Your task to perform on an android device: Go to sound settings Image 0: 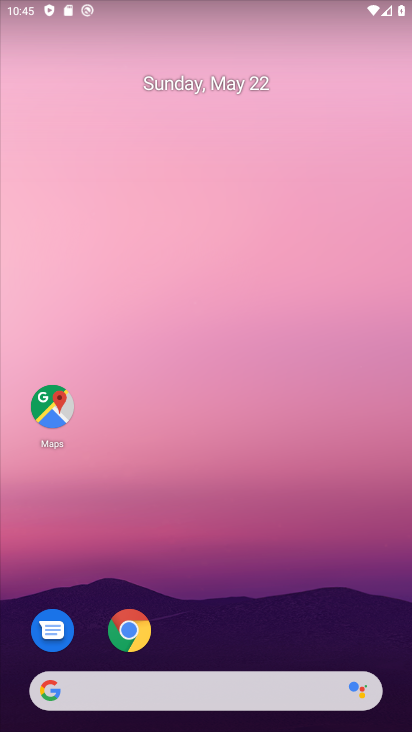
Step 0: drag from (293, 648) to (292, 209)
Your task to perform on an android device: Go to sound settings Image 1: 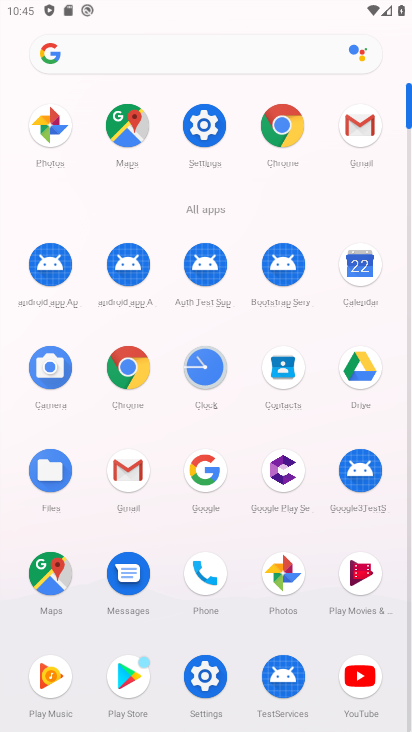
Step 1: click (218, 144)
Your task to perform on an android device: Go to sound settings Image 2: 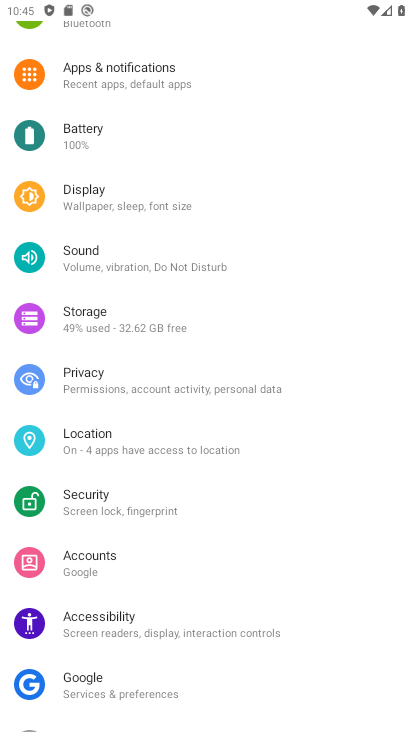
Step 2: drag from (320, 585) to (312, 400)
Your task to perform on an android device: Go to sound settings Image 3: 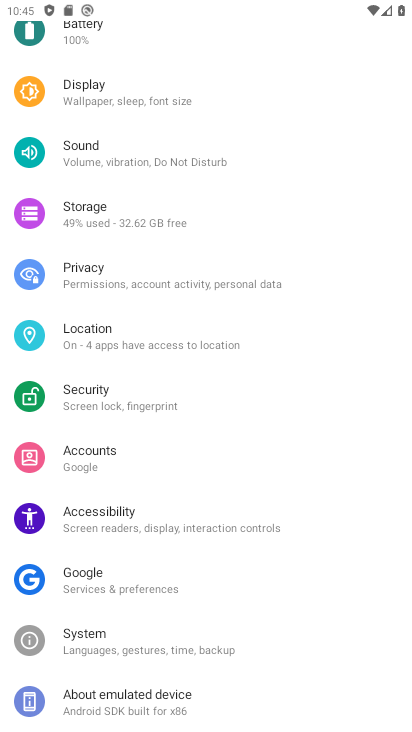
Step 3: drag from (312, 607) to (318, 438)
Your task to perform on an android device: Go to sound settings Image 4: 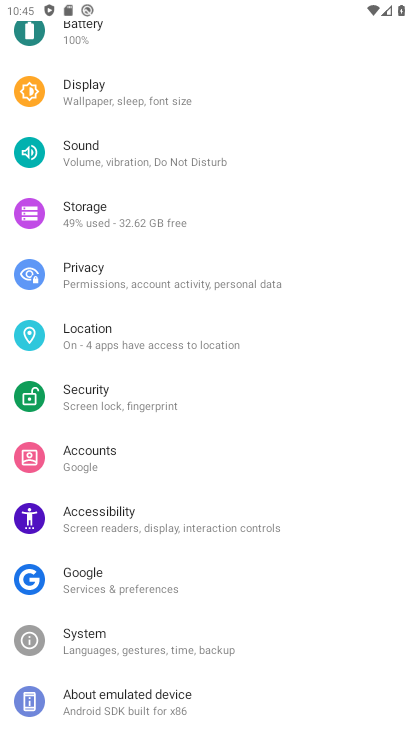
Step 4: drag from (324, 688) to (308, 479)
Your task to perform on an android device: Go to sound settings Image 5: 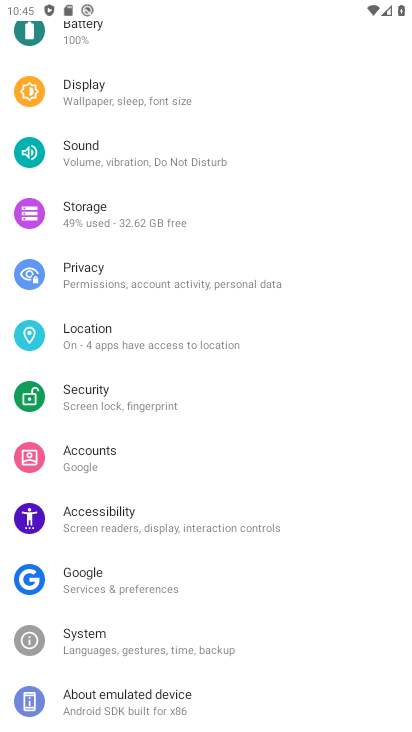
Step 5: drag from (358, 685) to (361, 522)
Your task to perform on an android device: Go to sound settings Image 6: 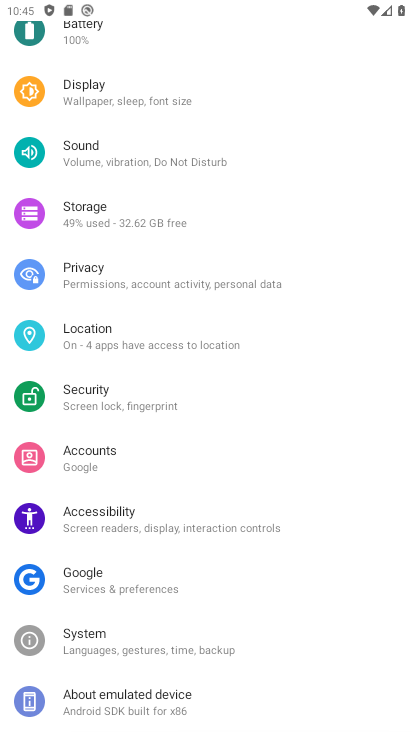
Step 6: drag from (351, 333) to (350, 505)
Your task to perform on an android device: Go to sound settings Image 7: 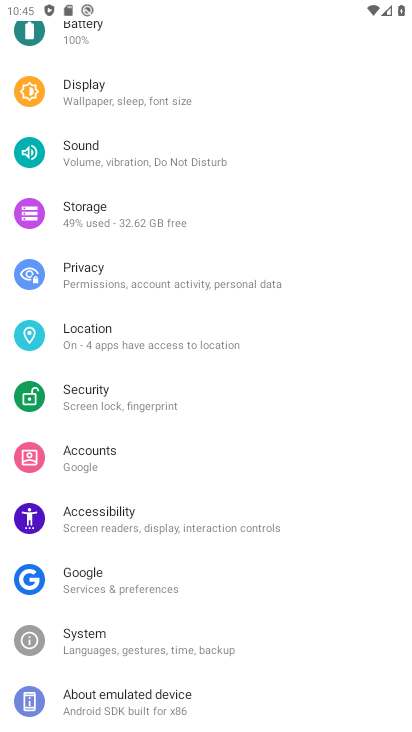
Step 7: drag from (363, 342) to (347, 446)
Your task to perform on an android device: Go to sound settings Image 8: 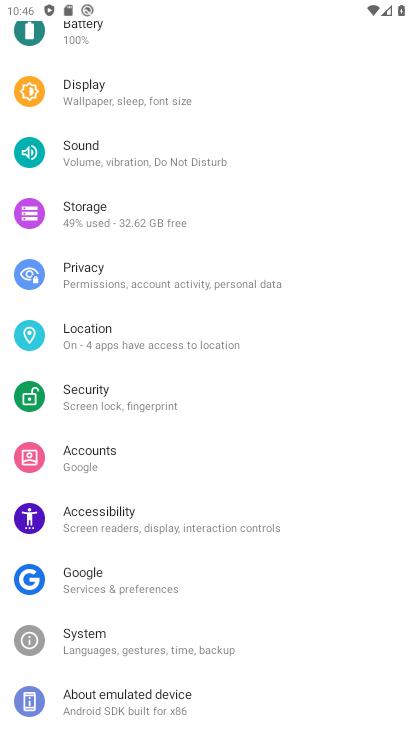
Step 8: drag from (355, 341) to (337, 444)
Your task to perform on an android device: Go to sound settings Image 9: 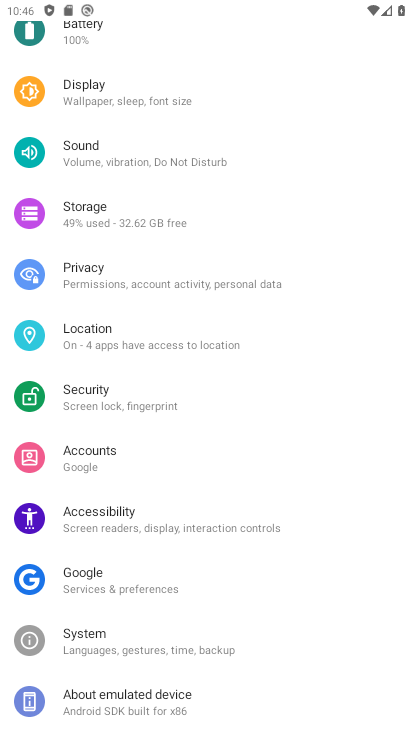
Step 9: drag from (353, 298) to (344, 422)
Your task to perform on an android device: Go to sound settings Image 10: 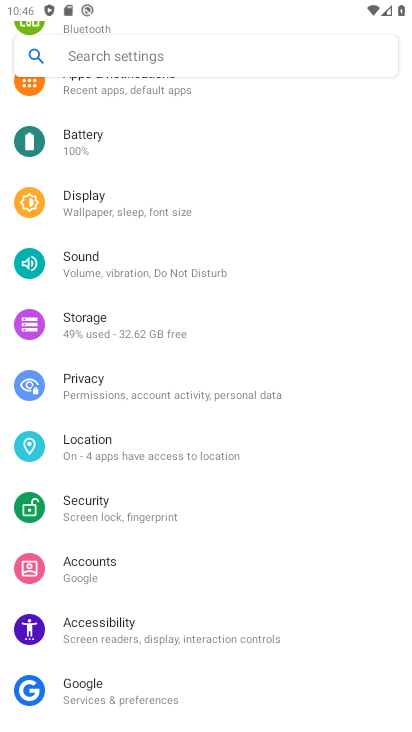
Step 10: drag from (353, 256) to (334, 379)
Your task to perform on an android device: Go to sound settings Image 11: 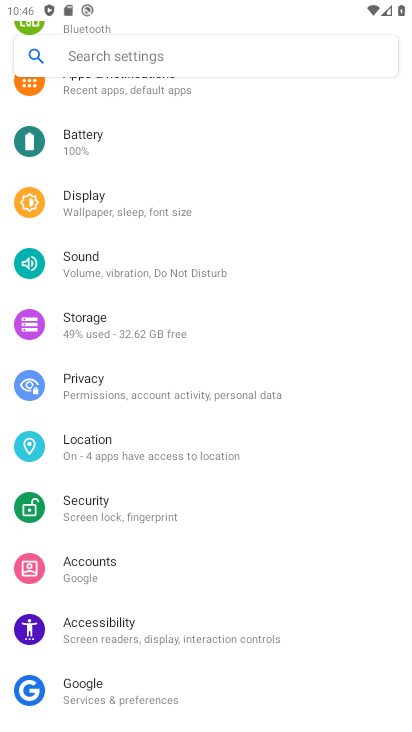
Step 11: drag from (344, 233) to (340, 376)
Your task to perform on an android device: Go to sound settings Image 12: 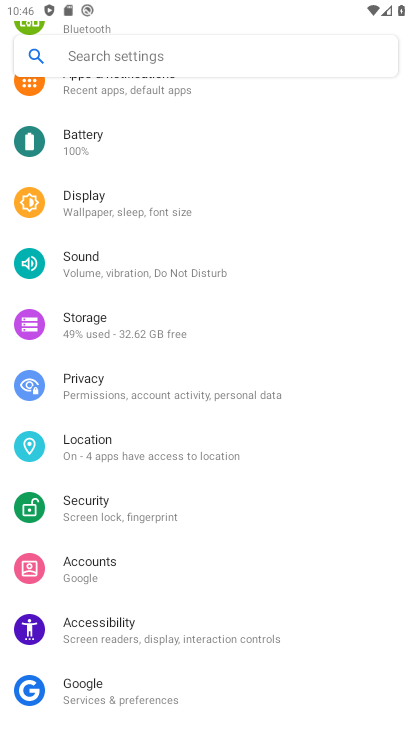
Step 12: drag from (338, 472) to (341, 342)
Your task to perform on an android device: Go to sound settings Image 13: 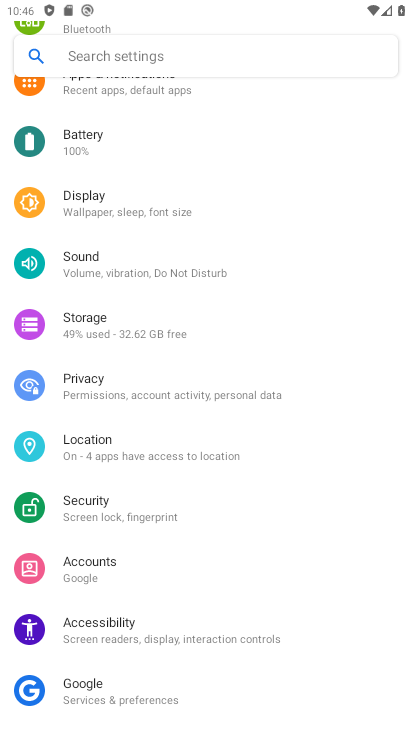
Step 13: drag from (338, 567) to (337, 447)
Your task to perform on an android device: Go to sound settings Image 14: 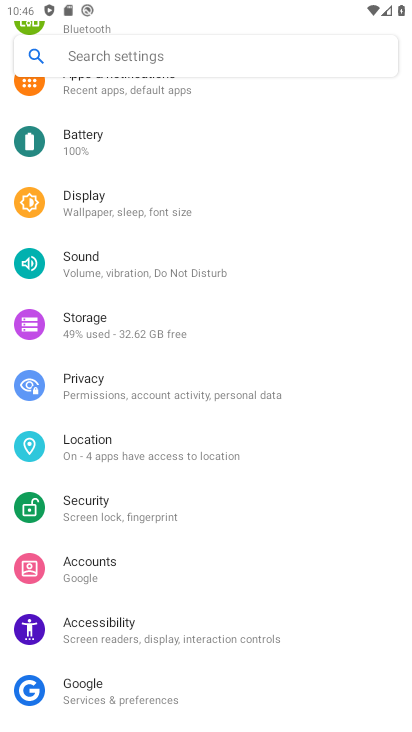
Step 14: click (201, 249)
Your task to perform on an android device: Go to sound settings Image 15: 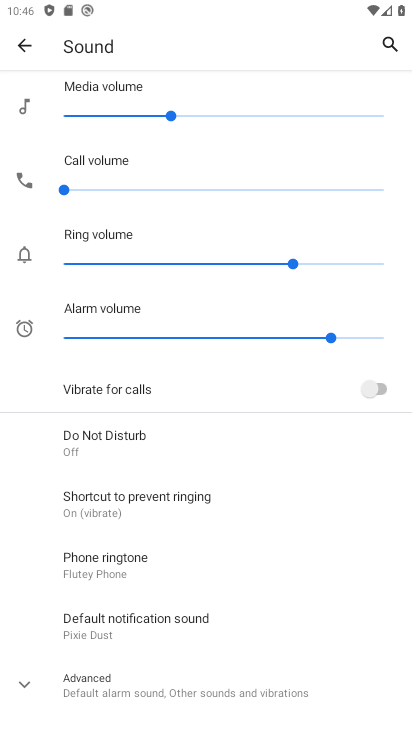
Step 15: task complete